Your task to perform on an android device: open the mobile data screen to see how much data has been used Image 0: 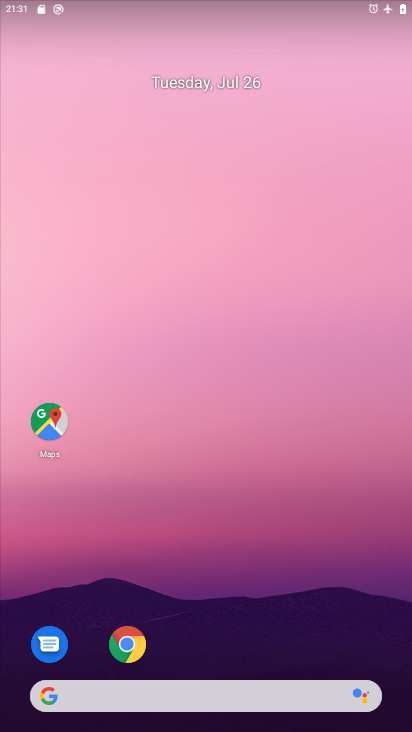
Step 0: drag from (247, 640) to (225, 114)
Your task to perform on an android device: open the mobile data screen to see how much data has been used Image 1: 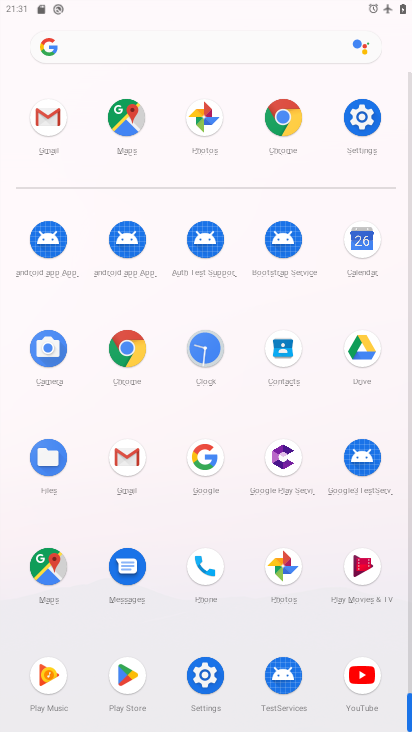
Step 1: click (355, 118)
Your task to perform on an android device: open the mobile data screen to see how much data has been used Image 2: 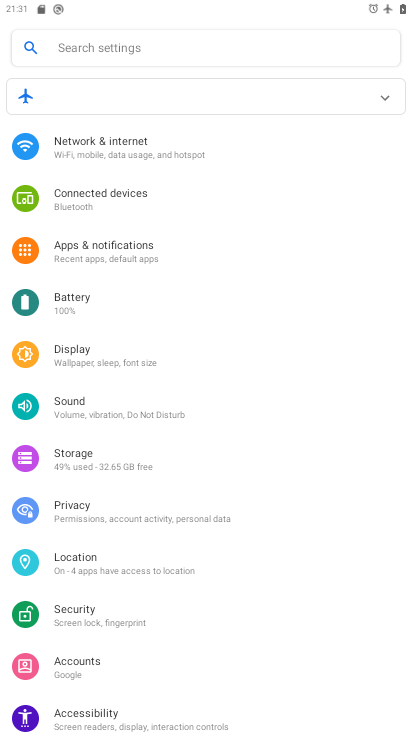
Step 2: click (121, 154)
Your task to perform on an android device: open the mobile data screen to see how much data has been used Image 3: 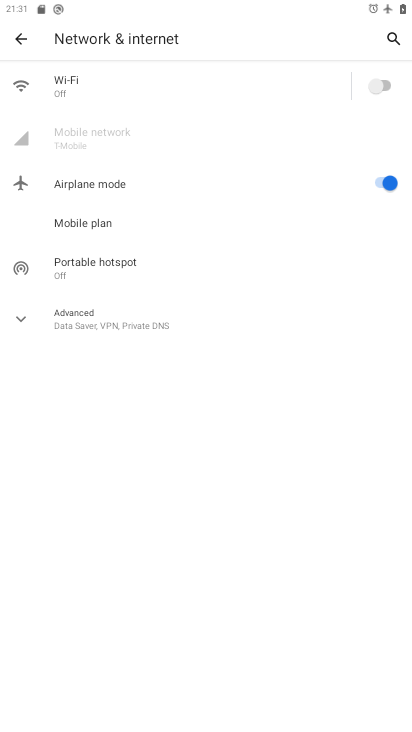
Step 3: click (78, 149)
Your task to perform on an android device: open the mobile data screen to see how much data has been used Image 4: 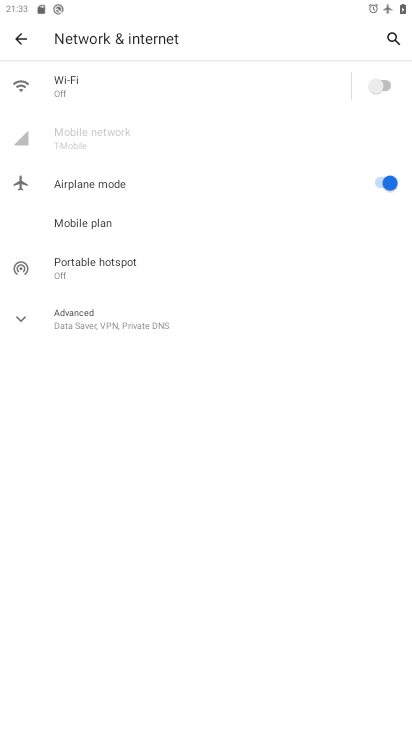
Step 4: task complete